Your task to perform on an android device: change your default location settings in chrome Image 0: 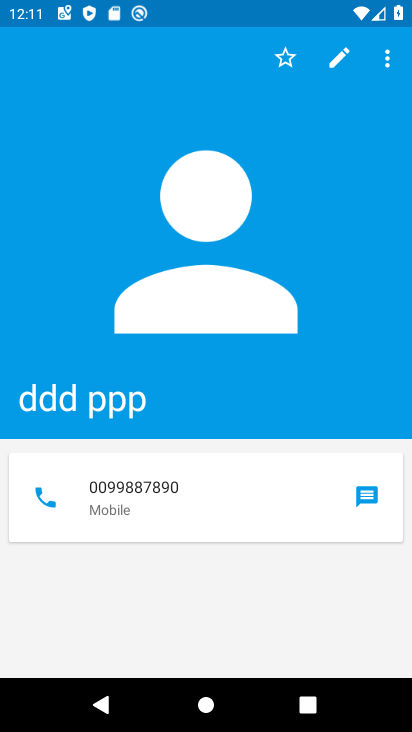
Step 0: press home button
Your task to perform on an android device: change your default location settings in chrome Image 1: 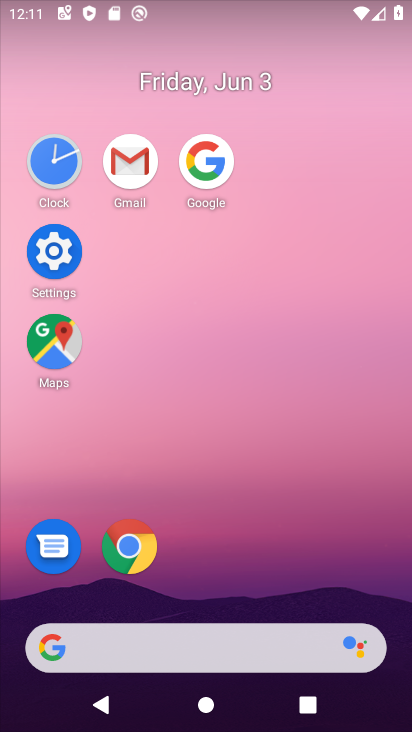
Step 1: click (134, 556)
Your task to perform on an android device: change your default location settings in chrome Image 2: 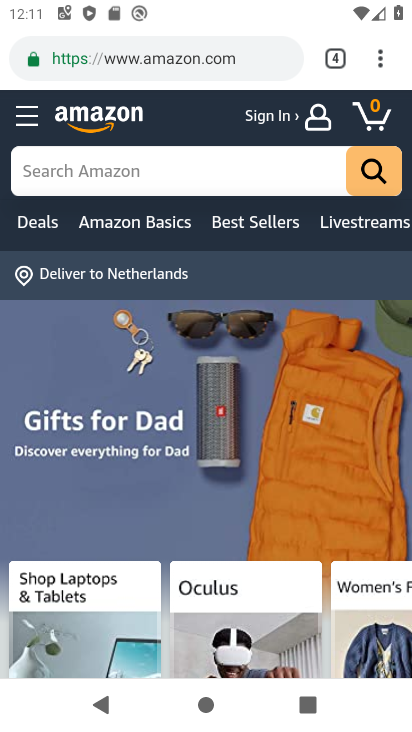
Step 2: click (387, 63)
Your task to perform on an android device: change your default location settings in chrome Image 3: 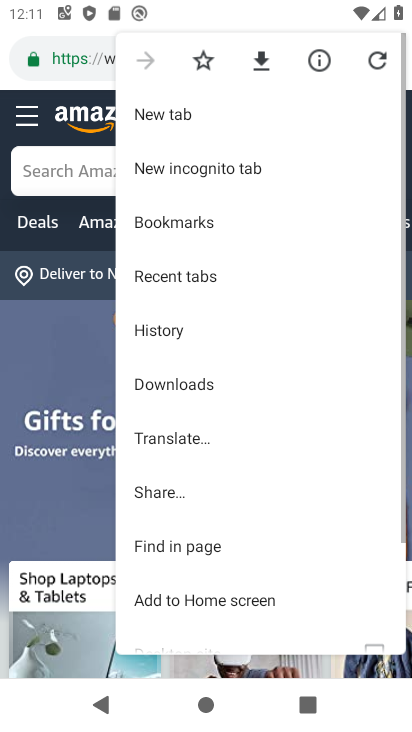
Step 3: drag from (242, 518) to (291, 213)
Your task to perform on an android device: change your default location settings in chrome Image 4: 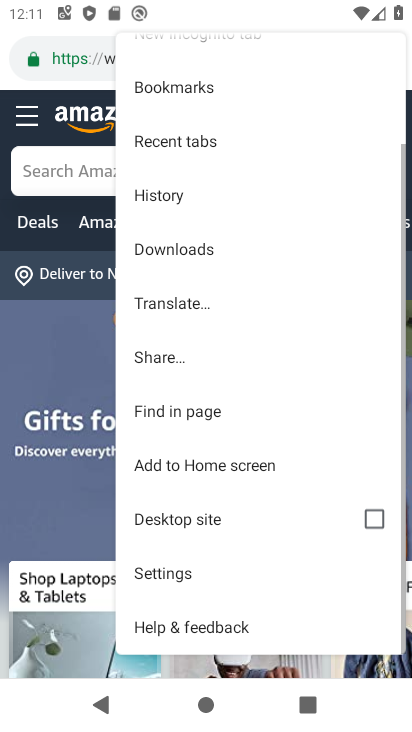
Step 4: click (198, 567)
Your task to perform on an android device: change your default location settings in chrome Image 5: 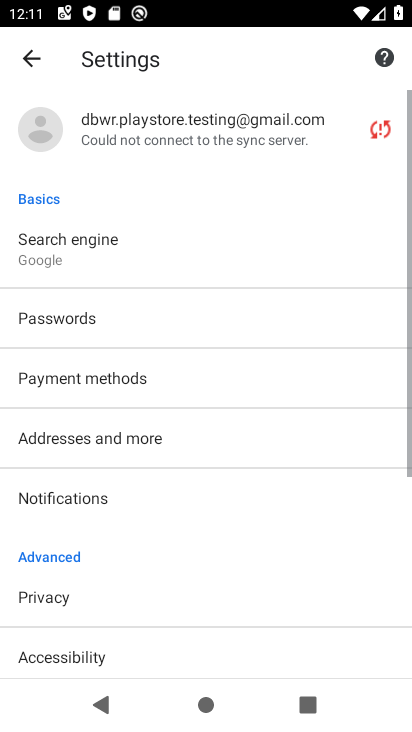
Step 5: drag from (198, 566) to (253, 218)
Your task to perform on an android device: change your default location settings in chrome Image 6: 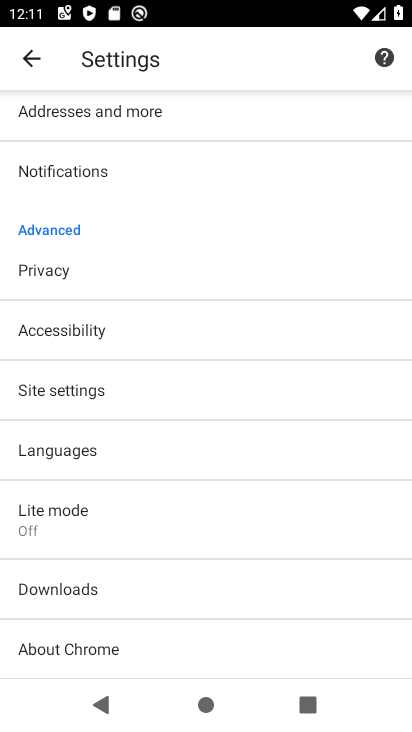
Step 6: drag from (169, 550) to (195, 217)
Your task to perform on an android device: change your default location settings in chrome Image 7: 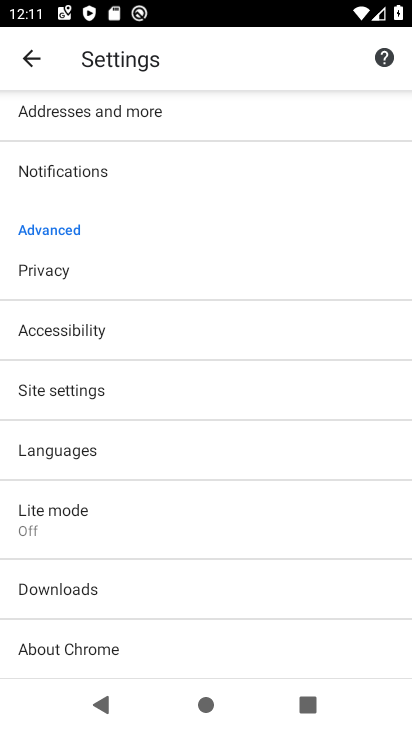
Step 7: click (163, 402)
Your task to perform on an android device: change your default location settings in chrome Image 8: 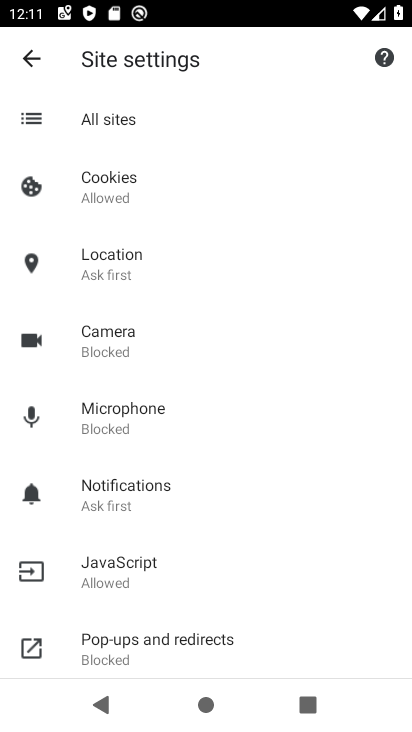
Step 8: click (142, 272)
Your task to perform on an android device: change your default location settings in chrome Image 9: 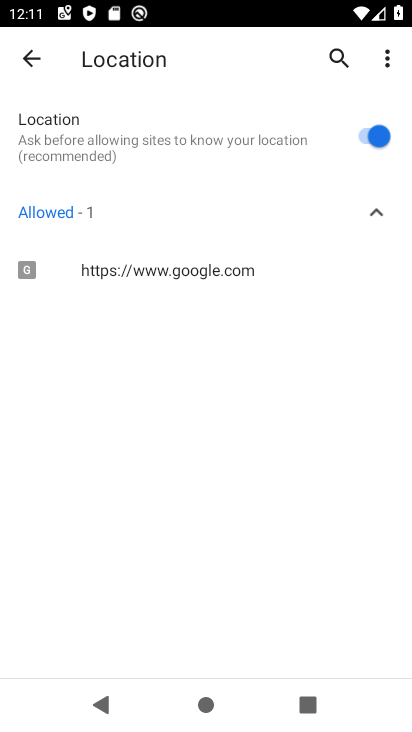
Step 9: click (382, 136)
Your task to perform on an android device: change your default location settings in chrome Image 10: 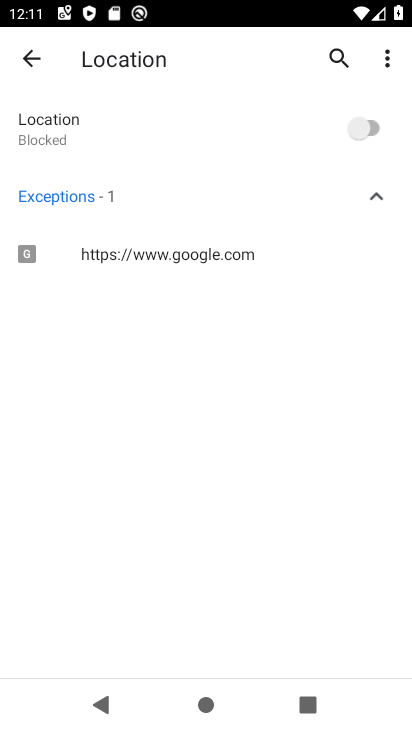
Step 10: task complete